Your task to perform on an android device: Open Google Maps and go to "Timeline" Image 0: 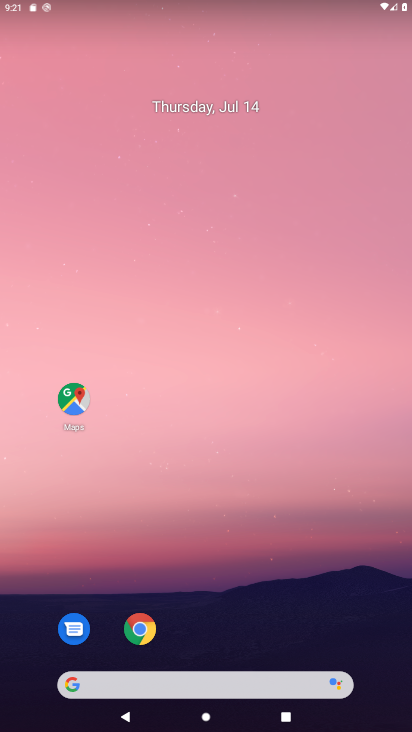
Step 0: drag from (274, 581) to (232, 182)
Your task to perform on an android device: Open Google Maps and go to "Timeline" Image 1: 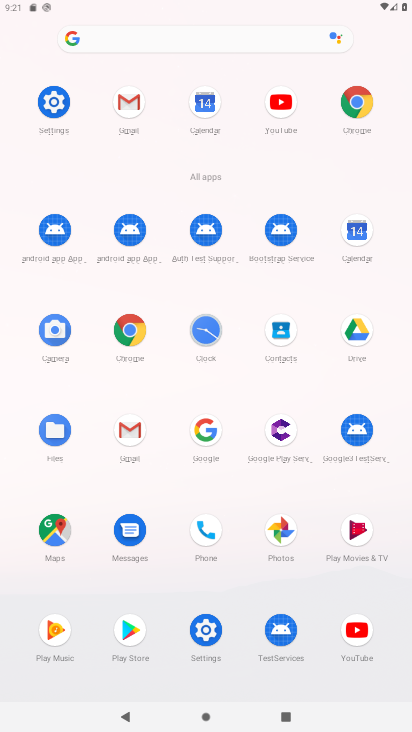
Step 1: click (38, 525)
Your task to perform on an android device: Open Google Maps and go to "Timeline" Image 2: 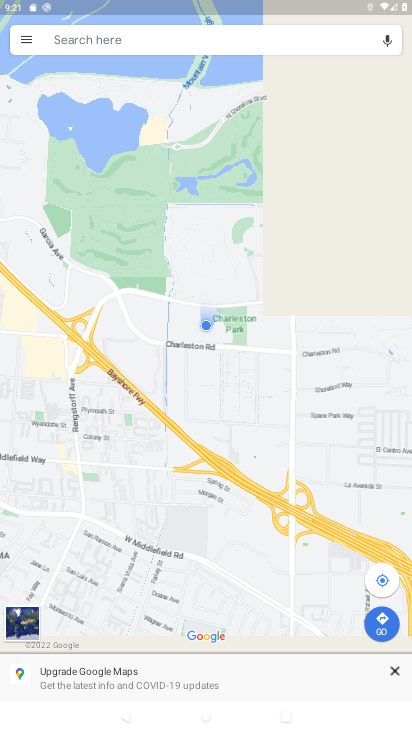
Step 2: click (20, 35)
Your task to perform on an android device: Open Google Maps and go to "Timeline" Image 3: 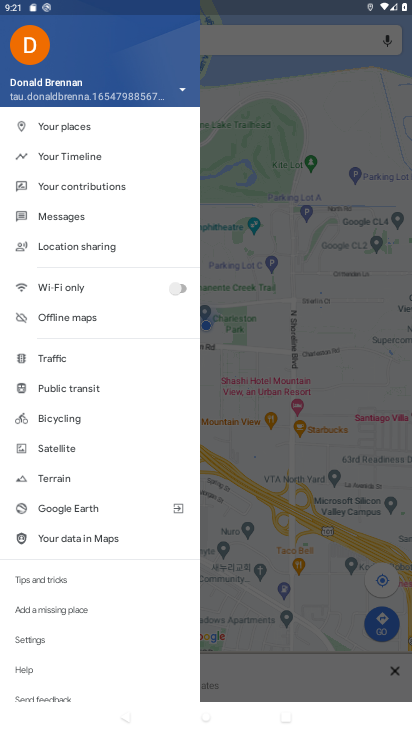
Step 3: click (74, 154)
Your task to perform on an android device: Open Google Maps and go to "Timeline" Image 4: 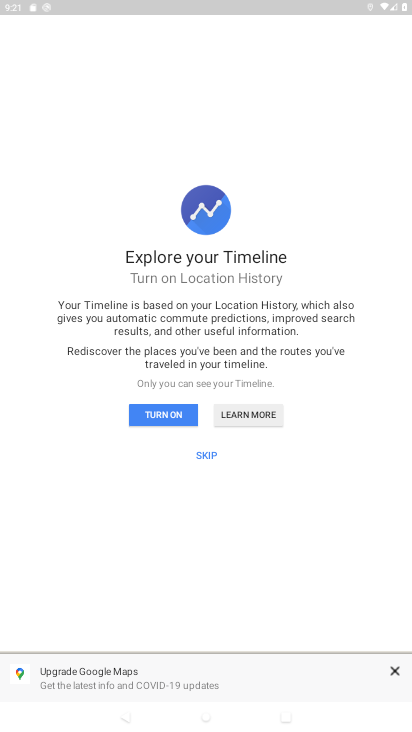
Step 4: click (143, 419)
Your task to perform on an android device: Open Google Maps and go to "Timeline" Image 5: 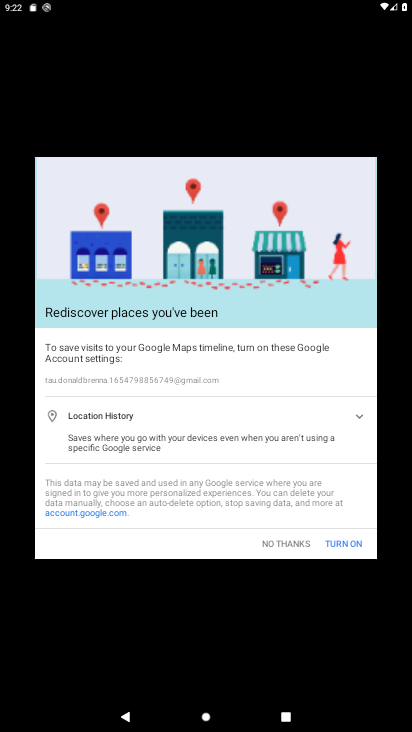
Step 5: click (279, 543)
Your task to perform on an android device: Open Google Maps and go to "Timeline" Image 6: 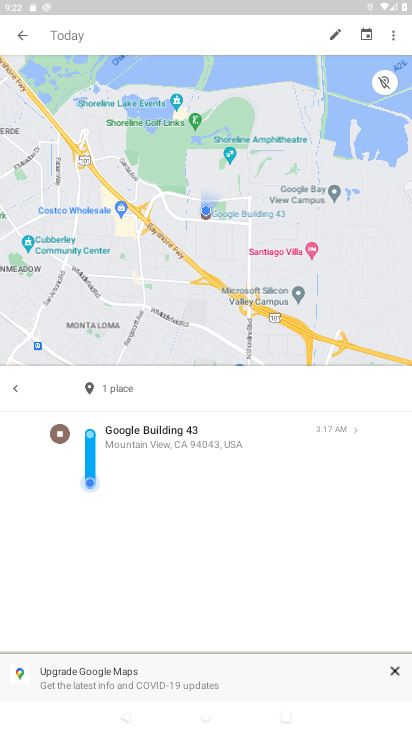
Step 6: task complete